Your task to perform on an android device: Go to settings Image 0: 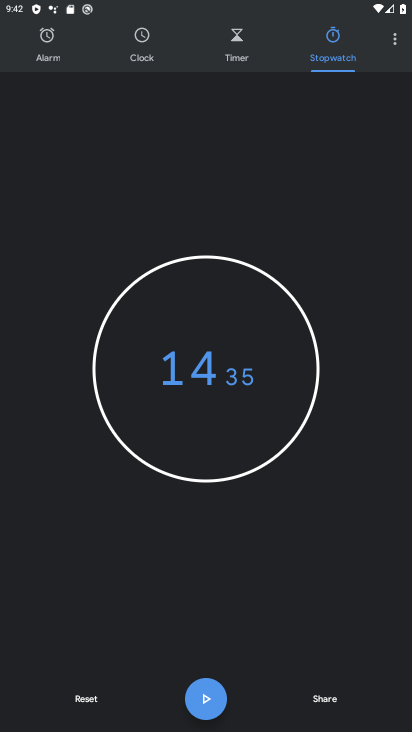
Step 0: press back button
Your task to perform on an android device: Go to settings Image 1: 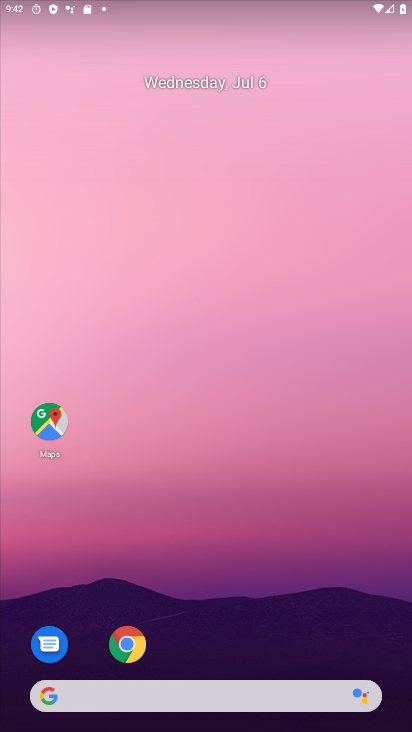
Step 1: drag from (221, 122) to (211, 84)
Your task to perform on an android device: Go to settings Image 2: 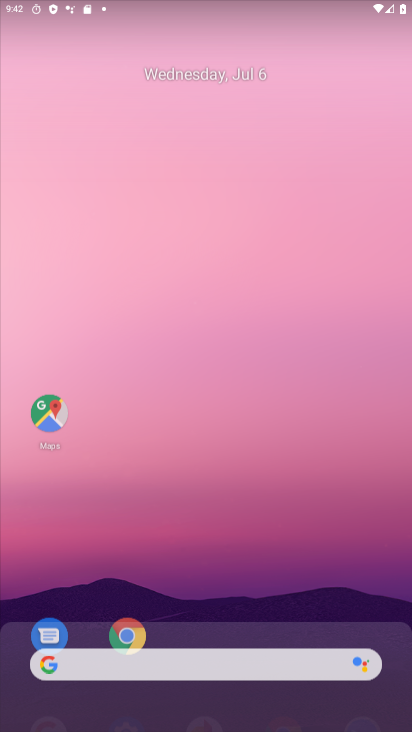
Step 2: drag from (214, 512) to (164, 190)
Your task to perform on an android device: Go to settings Image 3: 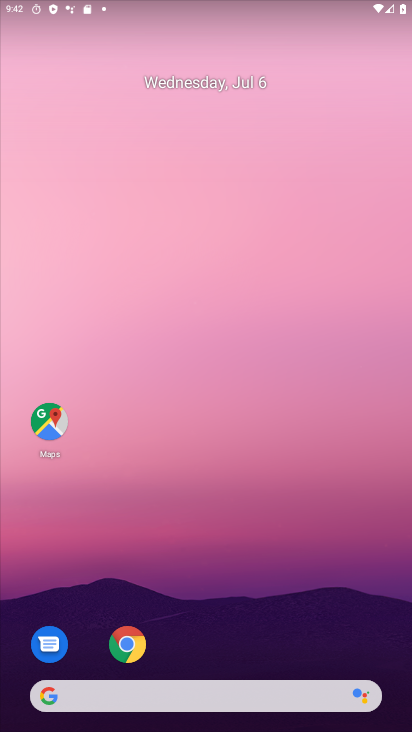
Step 3: drag from (239, 512) to (113, 54)
Your task to perform on an android device: Go to settings Image 4: 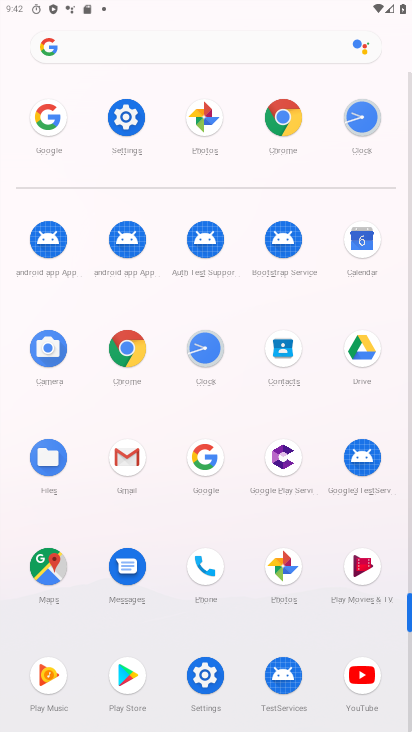
Step 4: click (127, 119)
Your task to perform on an android device: Go to settings Image 5: 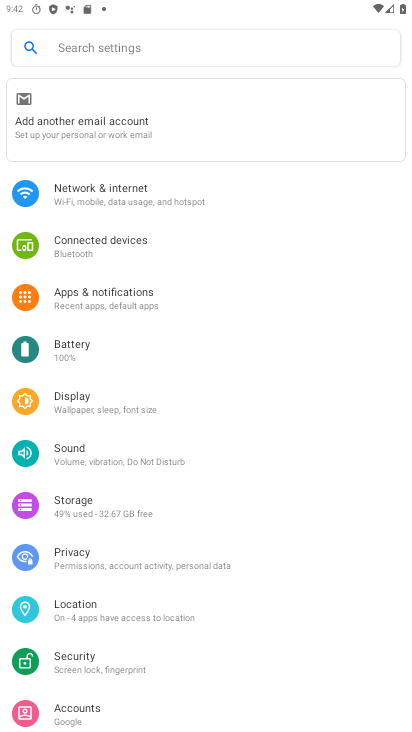
Step 5: task complete